Your task to perform on an android device: make emails show in primary in the gmail app Image 0: 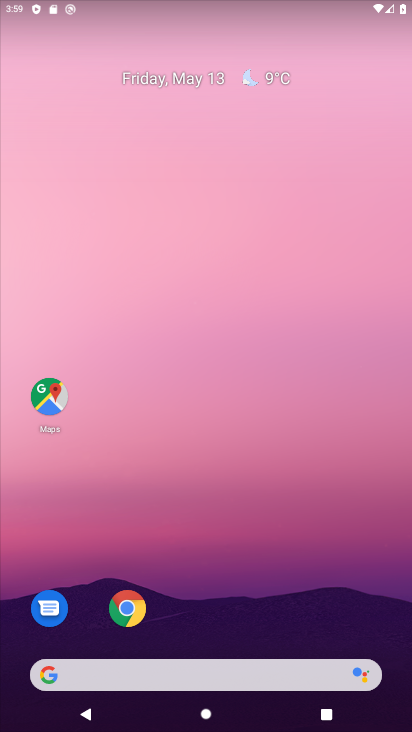
Step 0: drag from (298, 607) to (185, 20)
Your task to perform on an android device: make emails show in primary in the gmail app Image 1: 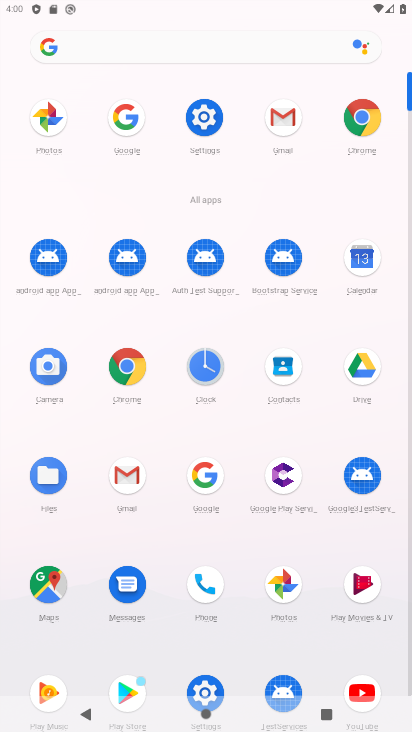
Step 1: click (288, 123)
Your task to perform on an android device: make emails show in primary in the gmail app Image 2: 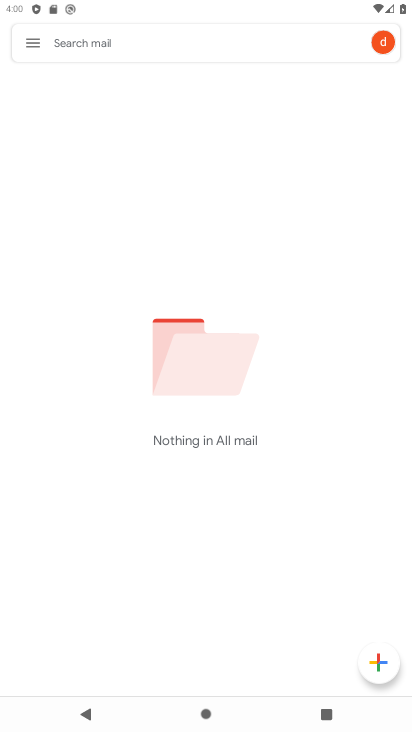
Step 2: click (29, 38)
Your task to perform on an android device: make emails show in primary in the gmail app Image 3: 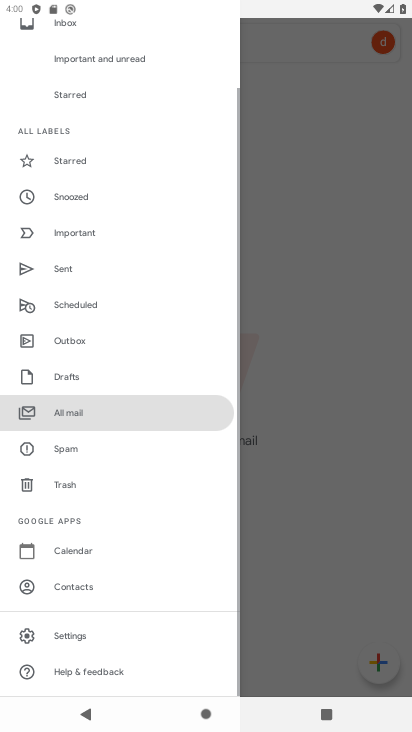
Step 3: task complete